Your task to perform on an android device: turn pop-ups off in chrome Image 0: 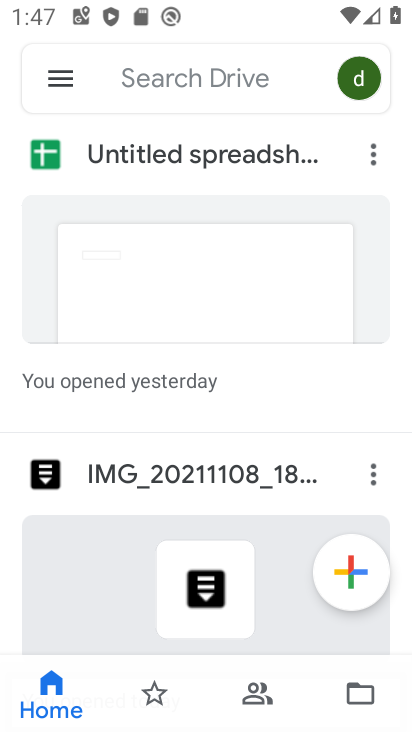
Step 0: press home button
Your task to perform on an android device: turn pop-ups off in chrome Image 1: 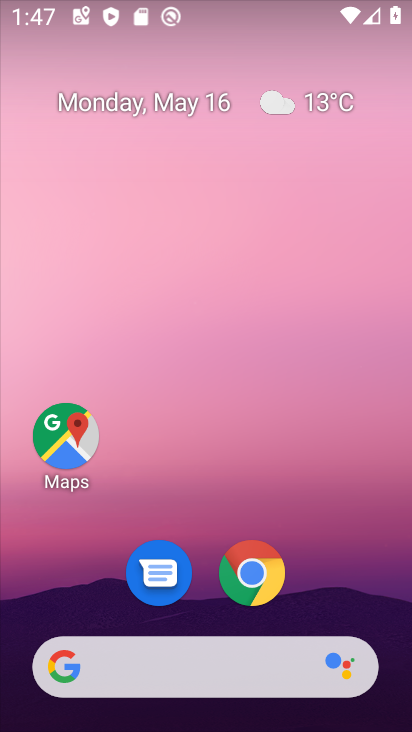
Step 1: click (240, 588)
Your task to perform on an android device: turn pop-ups off in chrome Image 2: 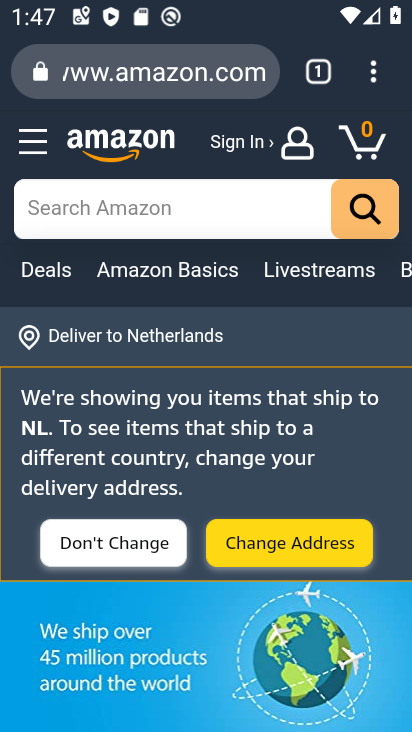
Step 2: drag from (370, 75) to (113, 555)
Your task to perform on an android device: turn pop-ups off in chrome Image 3: 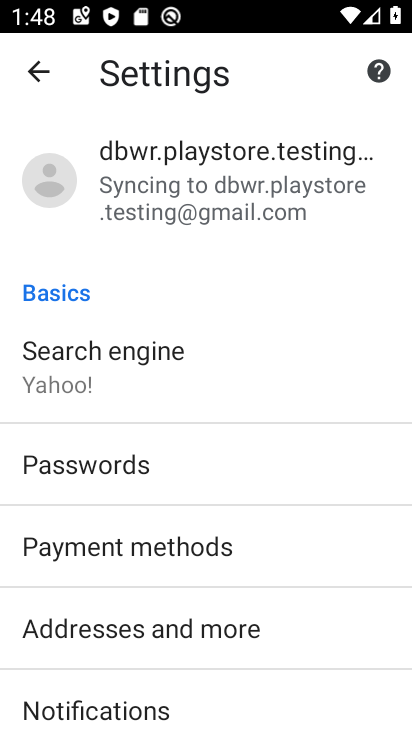
Step 3: drag from (148, 564) to (165, 208)
Your task to perform on an android device: turn pop-ups off in chrome Image 4: 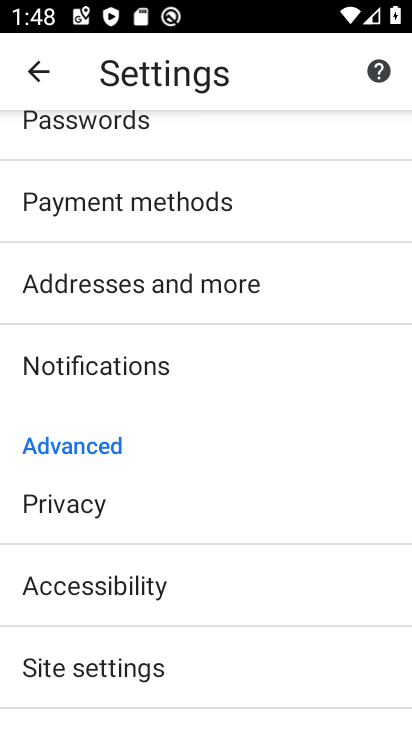
Step 4: click (77, 662)
Your task to perform on an android device: turn pop-ups off in chrome Image 5: 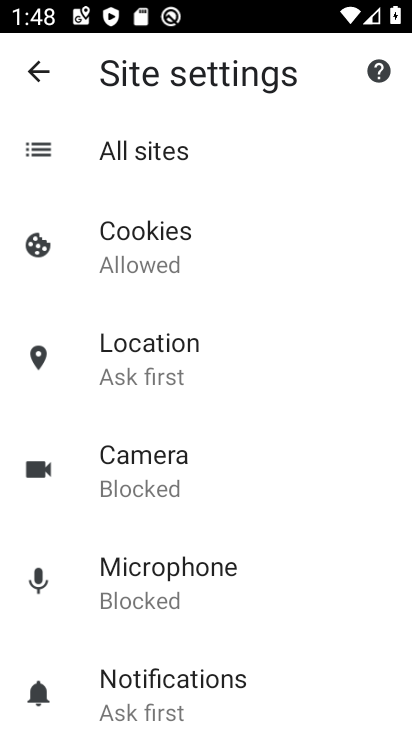
Step 5: drag from (140, 618) to (113, 177)
Your task to perform on an android device: turn pop-ups off in chrome Image 6: 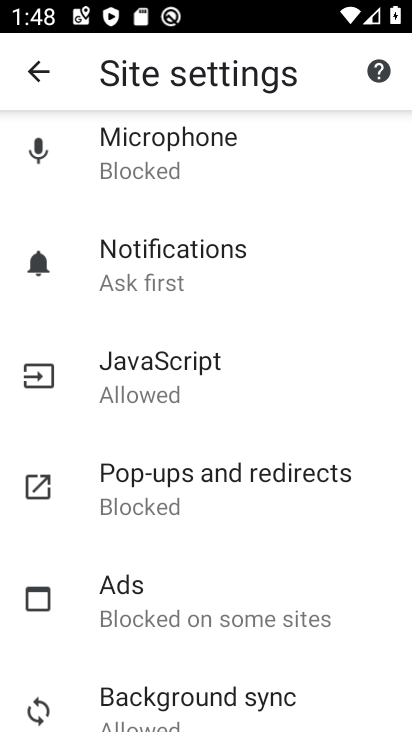
Step 6: click (156, 486)
Your task to perform on an android device: turn pop-ups off in chrome Image 7: 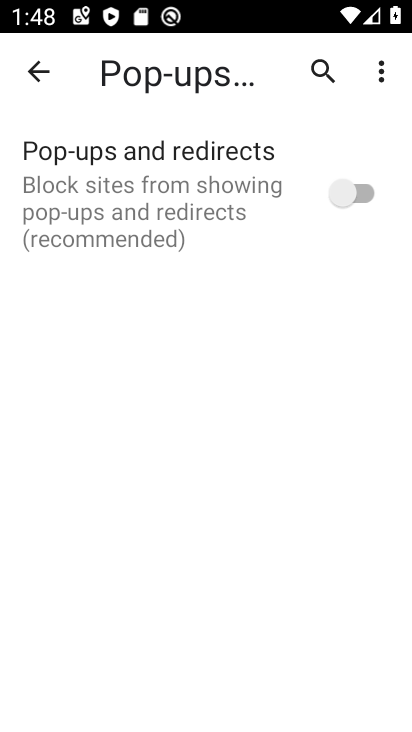
Step 7: task complete